Your task to perform on an android device: empty trash in google photos Image 0: 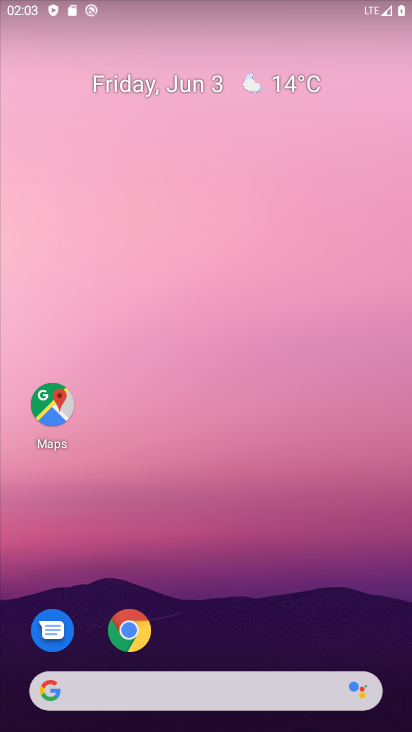
Step 0: drag from (395, 698) to (328, 81)
Your task to perform on an android device: empty trash in google photos Image 1: 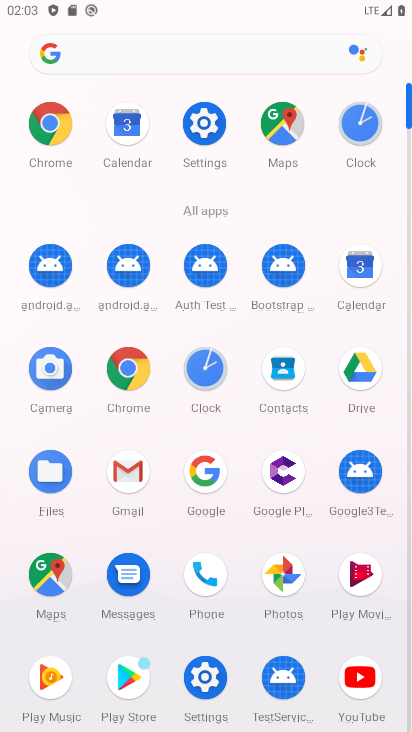
Step 1: click (278, 577)
Your task to perform on an android device: empty trash in google photos Image 2: 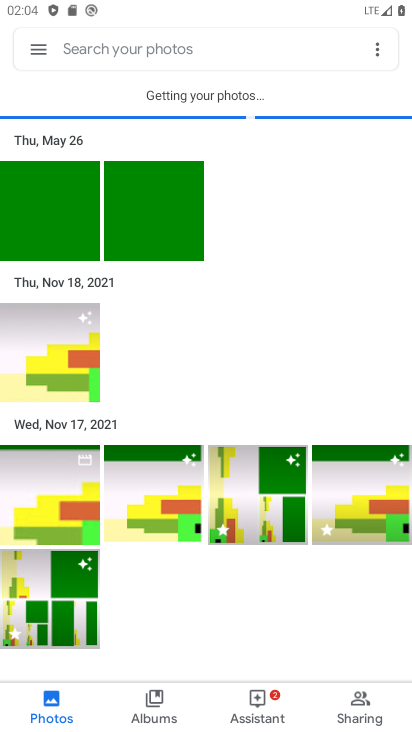
Step 2: click (33, 45)
Your task to perform on an android device: empty trash in google photos Image 3: 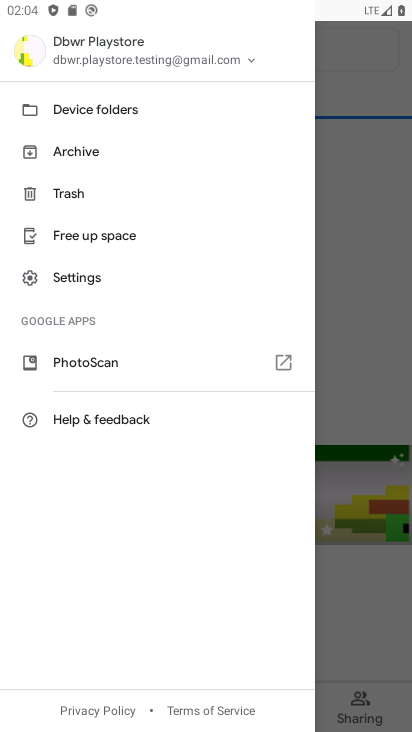
Step 3: click (60, 192)
Your task to perform on an android device: empty trash in google photos Image 4: 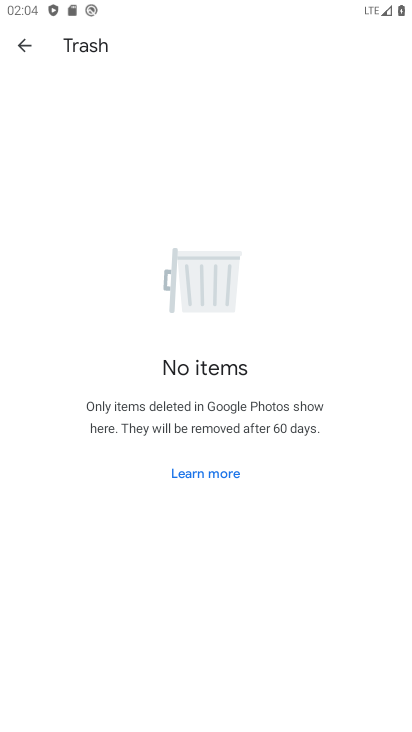
Step 4: task complete